Your task to perform on an android device: View the shopping cart on ebay.com. Search for dell xps on ebay.com, select the first entry, and add it to the cart. Image 0: 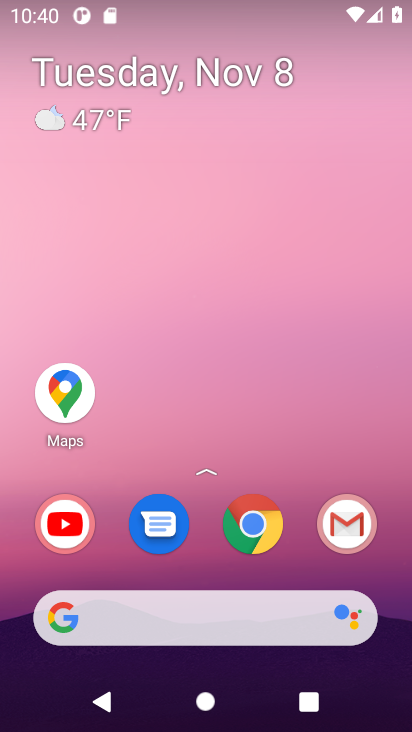
Step 0: click (259, 539)
Your task to perform on an android device: View the shopping cart on ebay.com. Search for dell xps on ebay.com, select the first entry, and add it to the cart. Image 1: 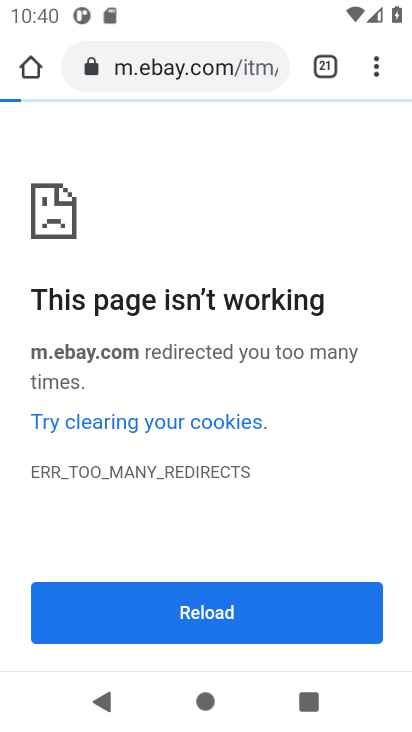
Step 1: press back button
Your task to perform on an android device: View the shopping cart on ebay.com. Search for dell xps on ebay.com, select the first entry, and add it to the cart. Image 2: 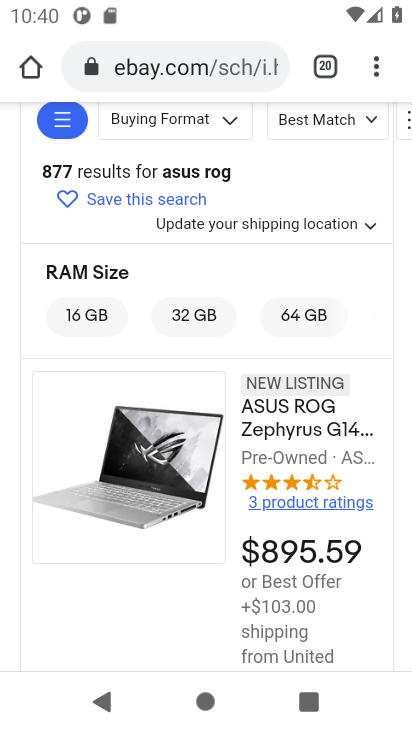
Step 2: drag from (297, 200) to (310, 526)
Your task to perform on an android device: View the shopping cart on ebay.com. Search for dell xps on ebay.com, select the first entry, and add it to the cart. Image 3: 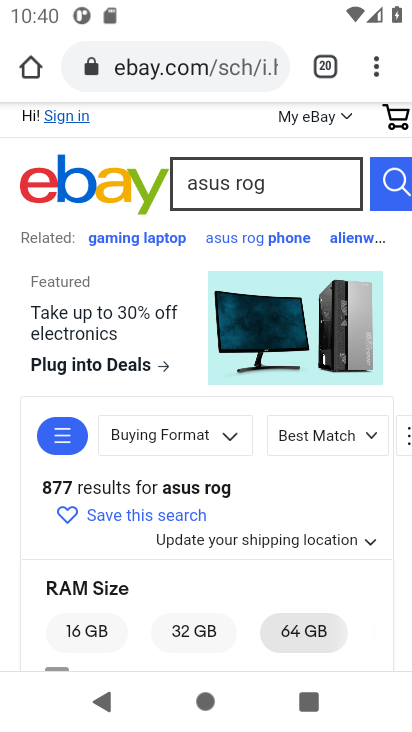
Step 3: click (404, 124)
Your task to perform on an android device: View the shopping cart on ebay.com. Search for dell xps on ebay.com, select the first entry, and add it to the cart. Image 4: 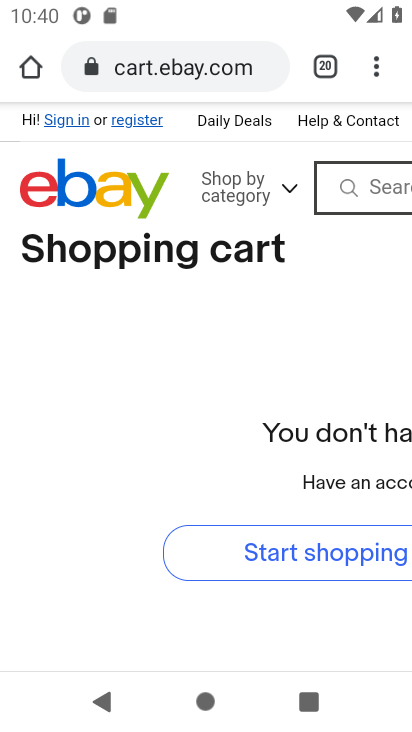
Step 4: drag from (255, 411) to (90, 383)
Your task to perform on an android device: View the shopping cart on ebay.com. Search for dell xps on ebay.com, select the first entry, and add it to the cart. Image 5: 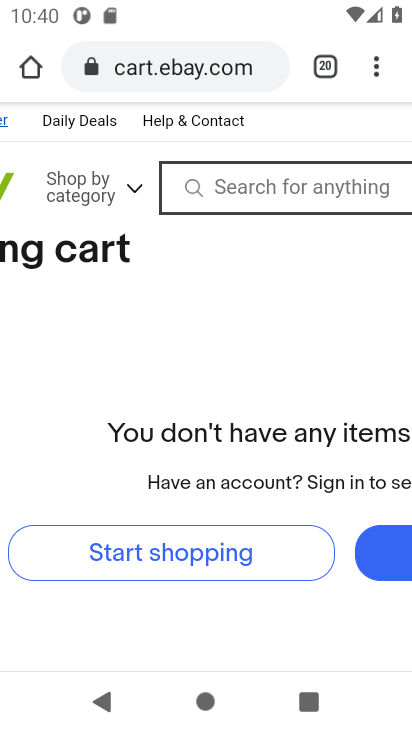
Step 5: click (266, 204)
Your task to perform on an android device: View the shopping cart on ebay.com. Search for dell xps on ebay.com, select the first entry, and add it to the cart. Image 6: 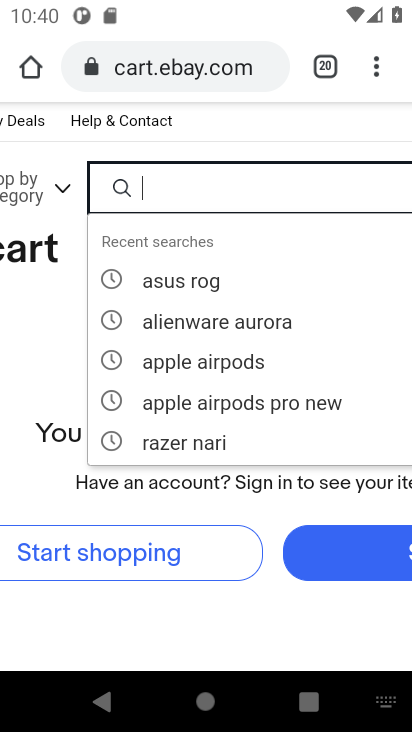
Step 6: type "dell xps"
Your task to perform on an android device: View the shopping cart on ebay.com. Search for dell xps on ebay.com, select the first entry, and add it to the cart. Image 7: 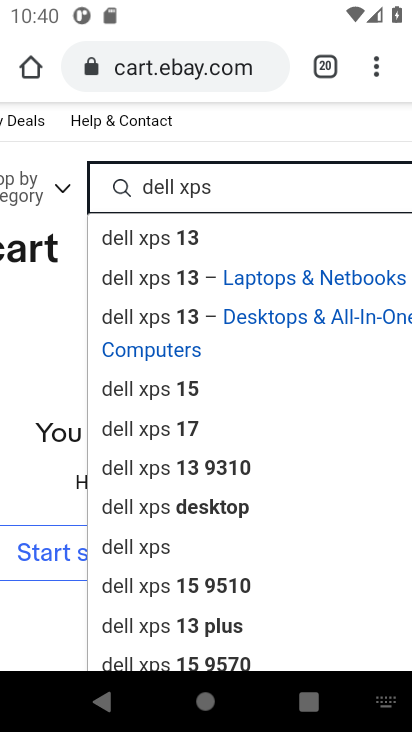
Step 7: click (148, 544)
Your task to perform on an android device: View the shopping cart on ebay.com. Search for dell xps on ebay.com, select the first entry, and add it to the cart. Image 8: 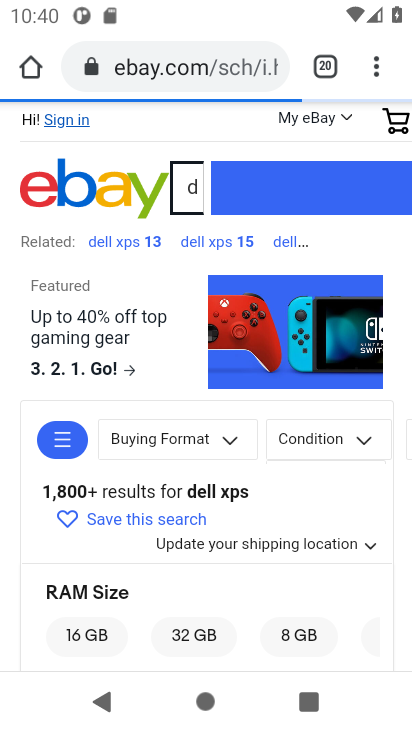
Step 8: drag from (174, 541) to (145, 315)
Your task to perform on an android device: View the shopping cart on ebay.com. Search for dell xps on ebay.com, select the first entry, and add it to the cart. Image 9: 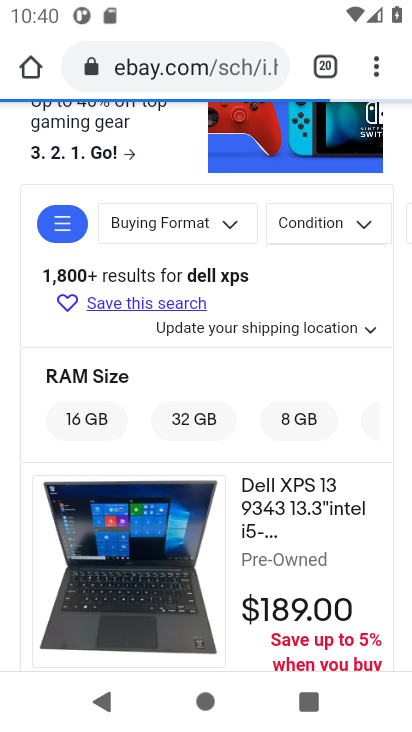
Step 9: drag from (112, 555) to (121, 348)
Your task to perform on an android device: View the shopping cart on ebay.com. Search for dell xps on ebay.com, select the first entry, and add it to the cart. Image 10: 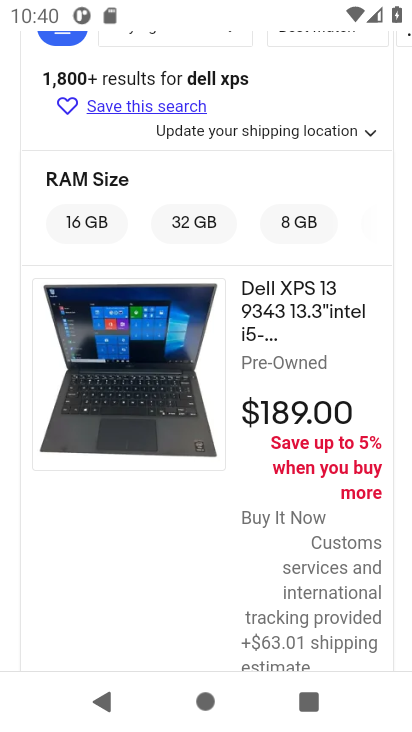
Step 10: click (114, 397)
Your task to perform on an android device: View the shopping cart on ebay.com. Search for dell xps on ebay.com, select the first entry, and add it to the cart. Image 11: 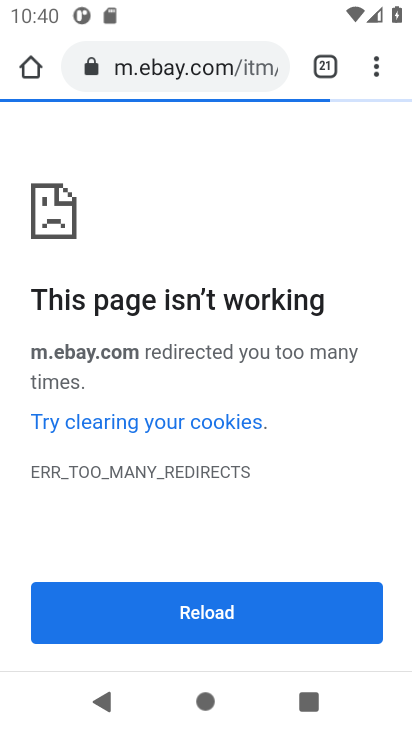
Step 11: task complete